Your task to perform on an android device: check the backup settings in the google photos Image 0: 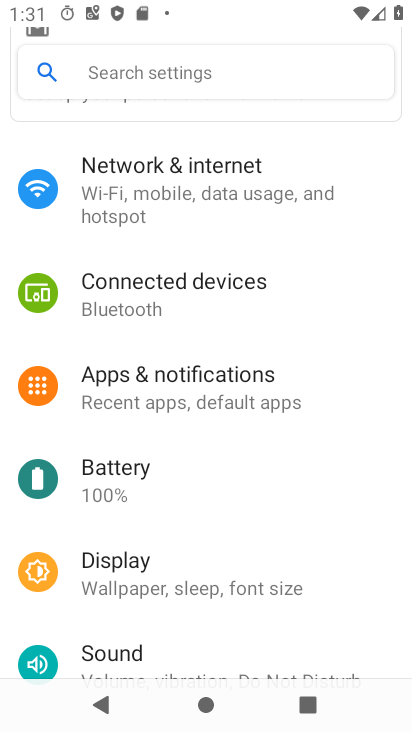
Step 0: press home button
Your task to perform on an android device: check the backup settings in the google photos Image 1: 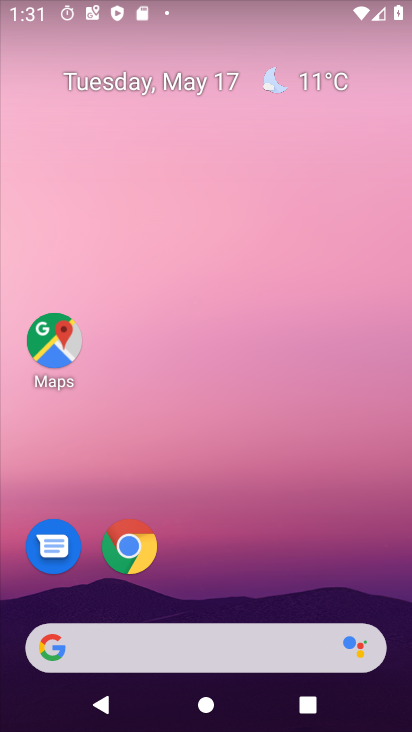
Step 1: drag from (158, 640) to (277, 142)
Your task to perform on an android device: check the backup settings in the google photos Image 2: 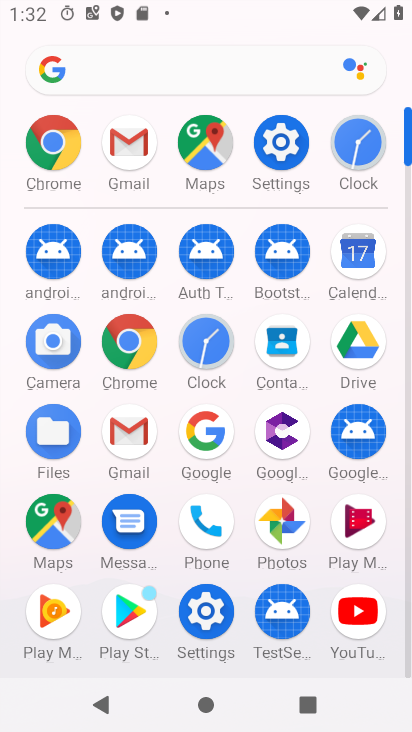
Step 2: click (292, 515)
Your task to perform on an android device: check the backup settings in the google photos Image 3: 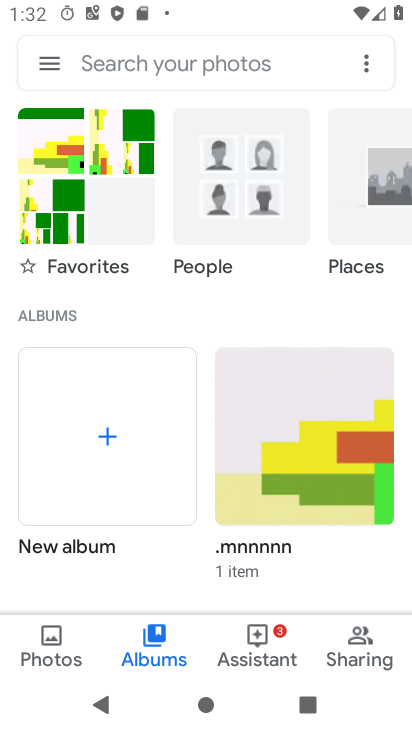
Step 3: click (51, 59)
Your task to perform on an android device: check the backup settings in the google photos Image 4: 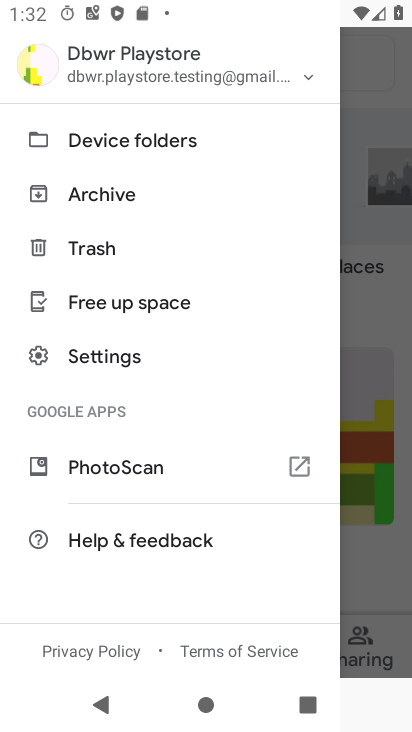
Step 4: click (127, 353)
Your task to perform on an android device: check the backup settings in the google photos Image 5: 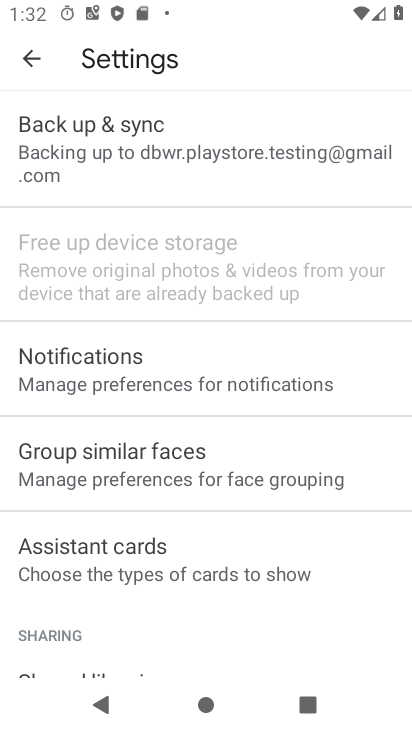
Step 5: click (149, 156)
Your task to perform on an android device: check the backup settings in the google photos Image 6: 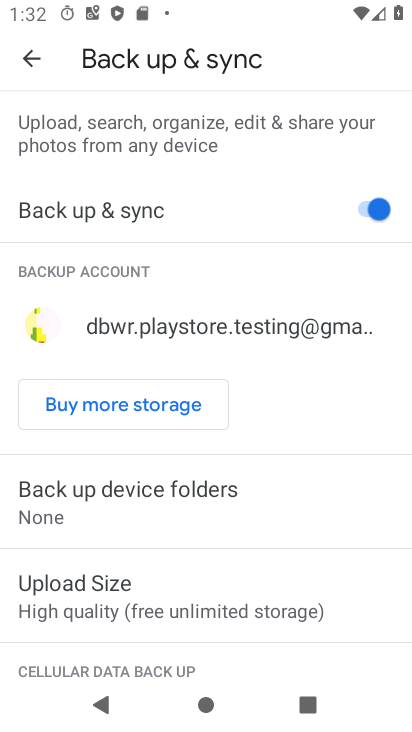
Step 6: task complete